Your task to perform on an android device: change the clock display to digital Image 0: 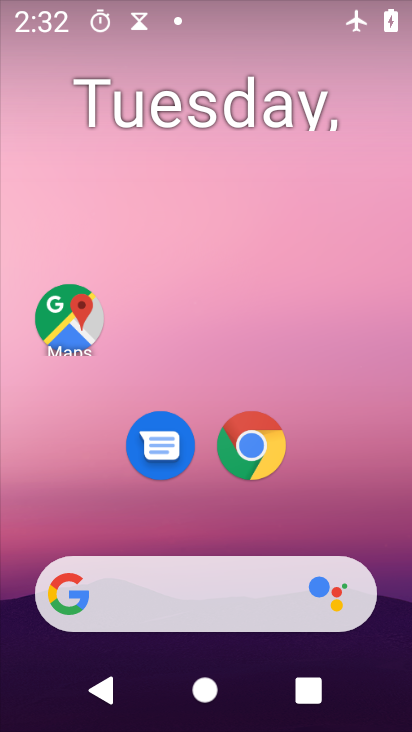
Step 0: drag from (125, 583) to (249, 0)
Your task to perform on an android device: change the clock display to digital Image 1: 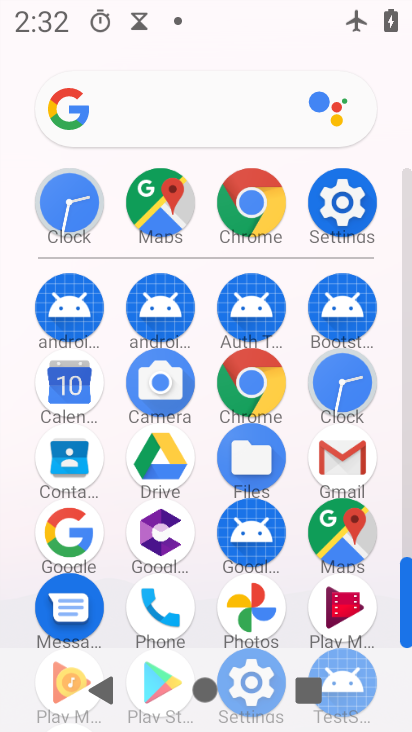
Step 1: click (329, 398)
Your task to perform on an android device: change the clock display to digital Image 2: 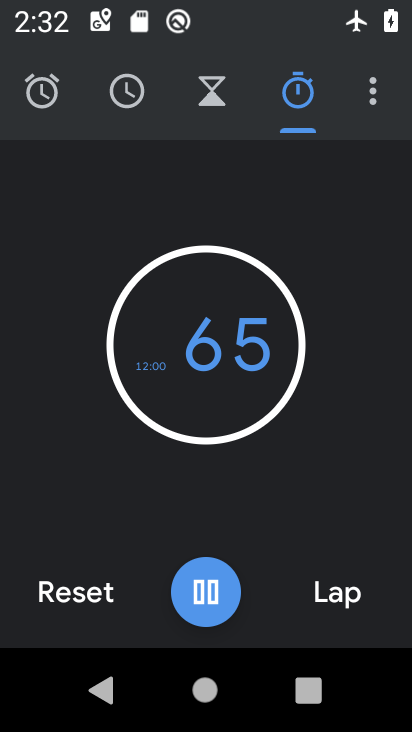
Step 2: click (372, 88)
Your task to perform on an android device: change the clock display to digital Image 3: 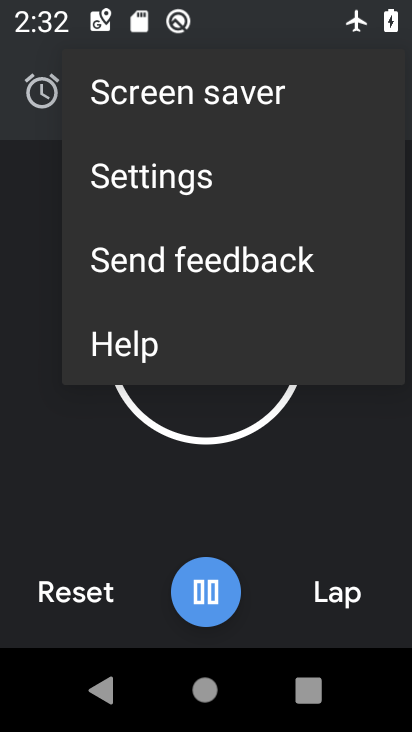
Step 3: click (210, 197)
Your task to perform on an android device: change the clock display to digital Image 4: 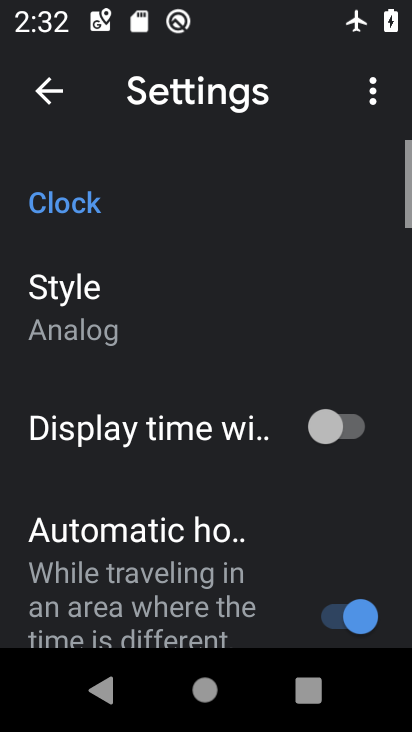
Step 4: click (162, 328)
Your task to perform on an android device: change the clock display to digital Image 5: 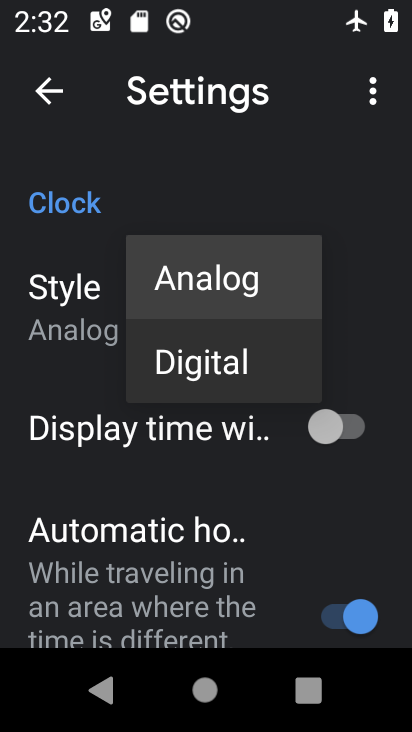
Step 5: click (186, 395)
Your task to perform on an android device: change the clock display to digital Image 6: 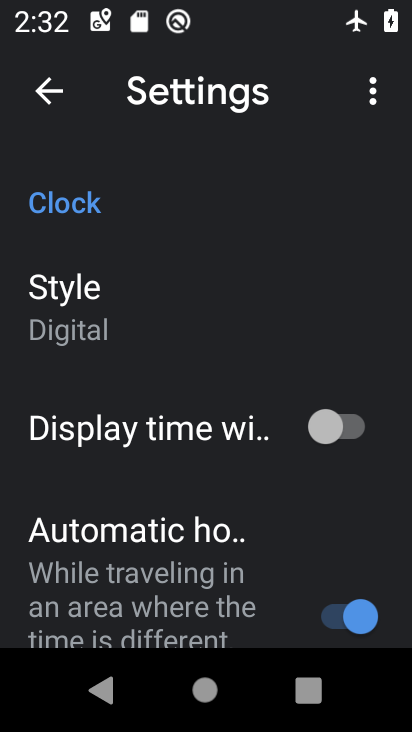
Step 6: task complete